Your task to perform on an android device: show emergency info Image 0: 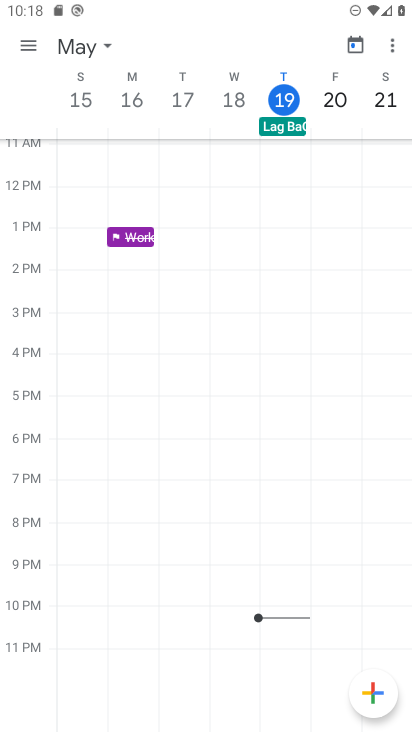
Step 0: press home button
Your task to perform on an android device: show emergency info Image 1: 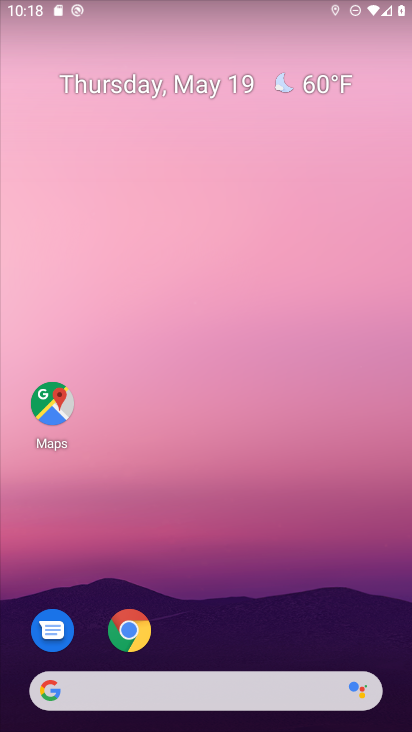
Step 1: drag from (245, 529) to (198, 122)
Your task to perform on an android device: show emergency info Image 2: 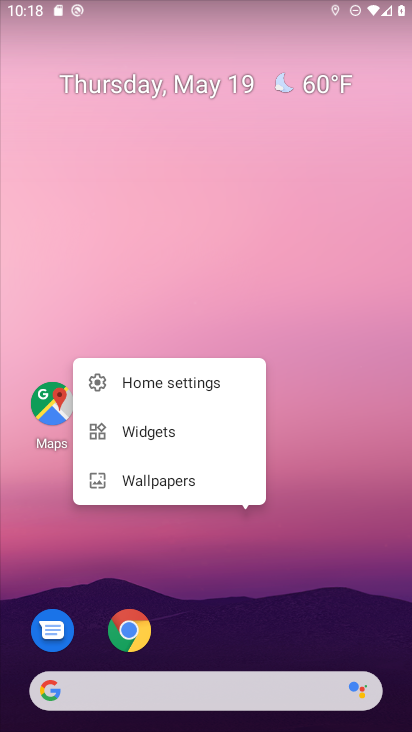
Step 2: click (198, 122)
Your task to perform on an android device: show emergency info Image 3: 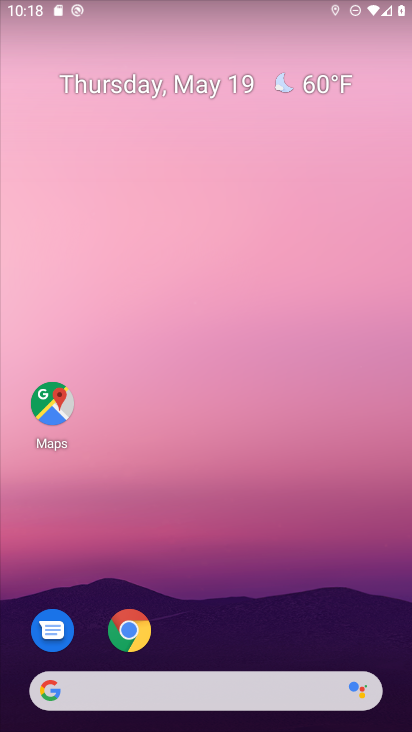
Step 3: click (299, 579)
Your task to perform on an android device: show emergency info Image 4: 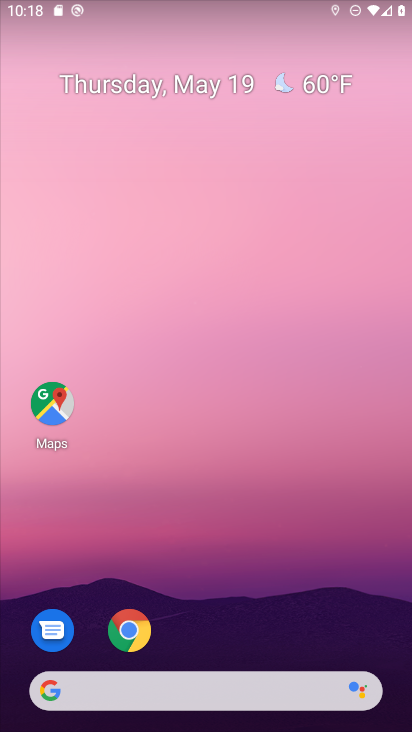
Step 4: drag from (262, 581) to (215, 0)
Your task to perform on an android device: show emergency info Image 5: 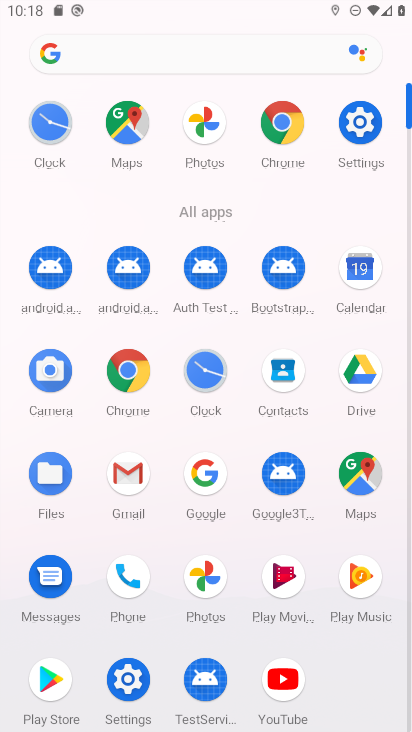
Step 5: click (361, 111)
Your task to perform on an android device: show emergency info Image 6: 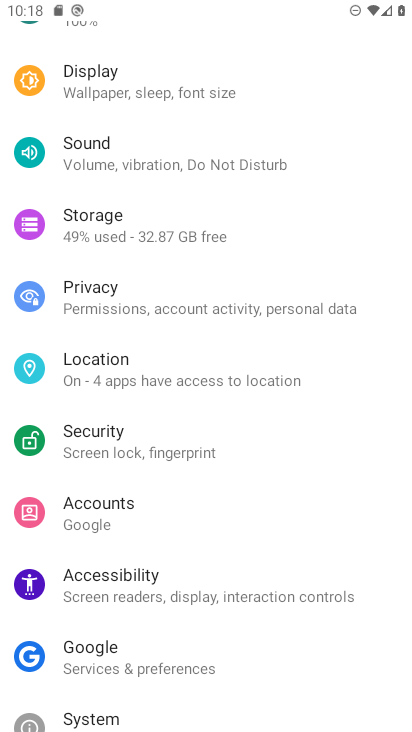
Step 6: drag from (197, 123) to (147, 717)
Your task to perform on an android device: show emergency info Image 7: 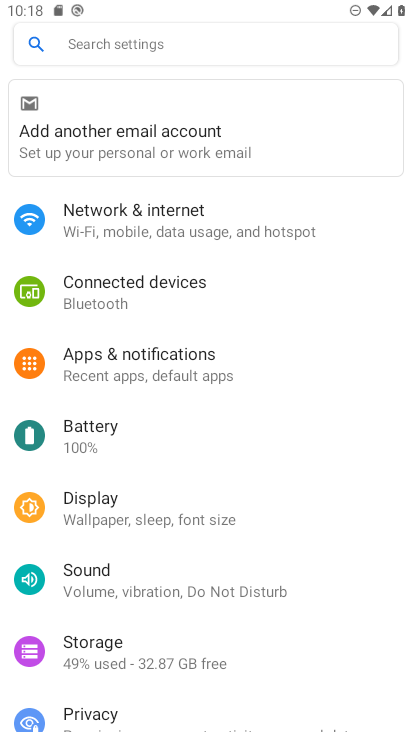
Step 7: drag from (210, 489) to (216, 38)
Your task to perform on an android device: show emergency info Image 8: 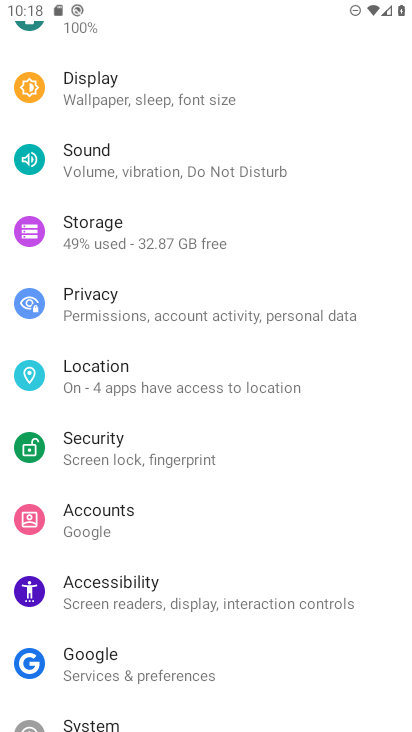
Step 8: drag from (224, 562) to (249, 47)
Your task to perform on an android device: show emergency info Image 9: 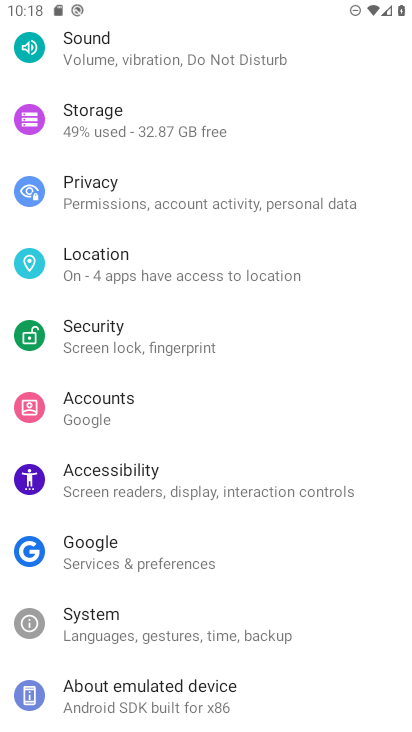
Step 9: drag from (289, 560) to (223, 87)
Your task to perform on an android device: show emergency info Image 10: 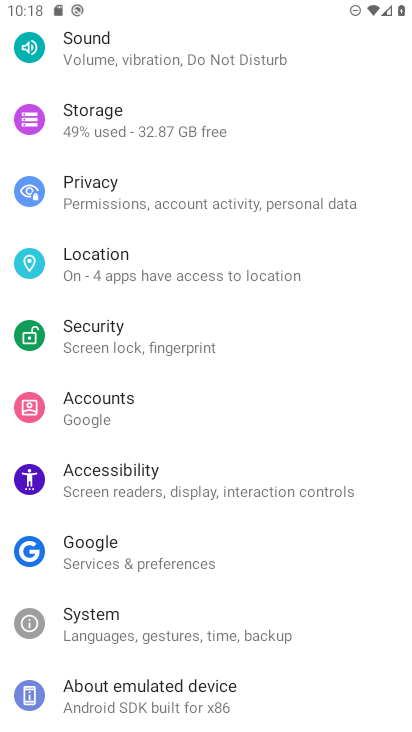
Step 10: click (166, 691)
Your task to perform on an android device: show emergency info Image 11: 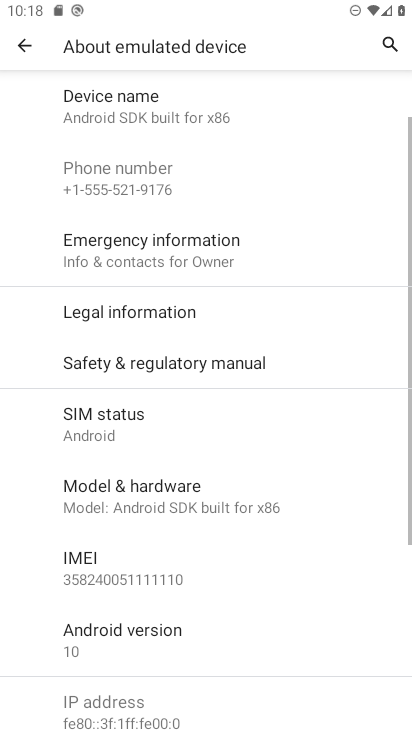
Step 11: click (136, 237)
Your task to perform on an android device: show emergency info Image 12: 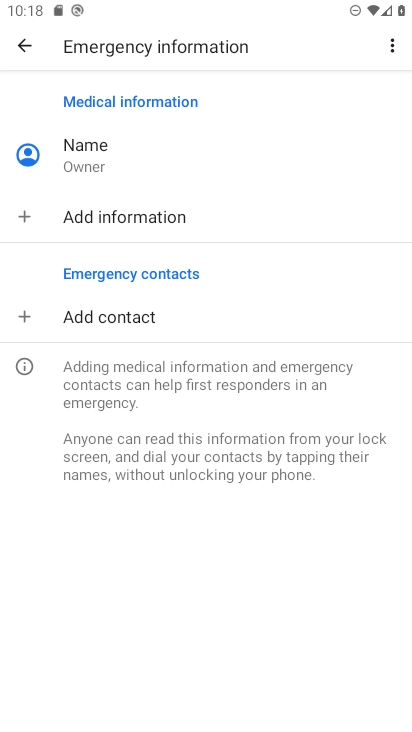
Step 12: task complete